Your task to perform on an android device: see tabs open on other devices in the chrome app Image 0: 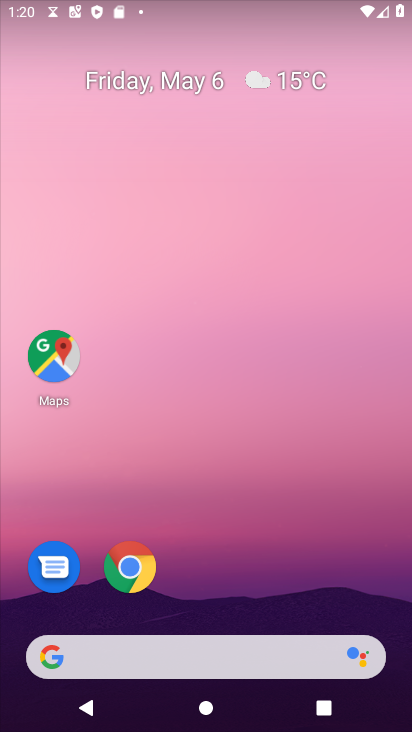
Step 0: drag from (343, 563) to (318, 160)
Your task to perform on an android device: see tabs open on other devices in the chrome app Image 1: 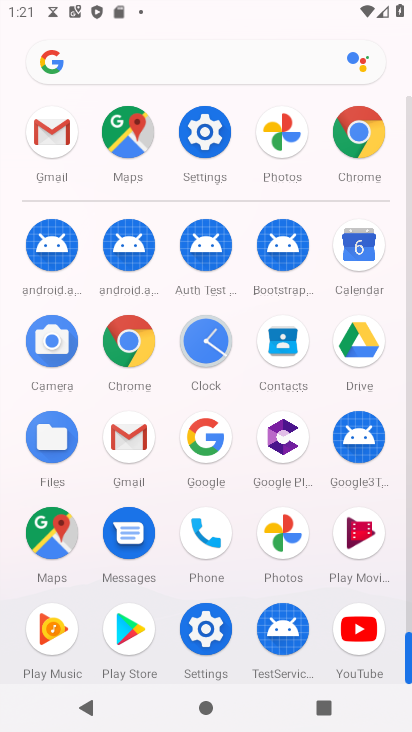
Step 1: click (358, 142)
Your task to perform on an android device: see tabs open on other devices in the chrome app Image 2: 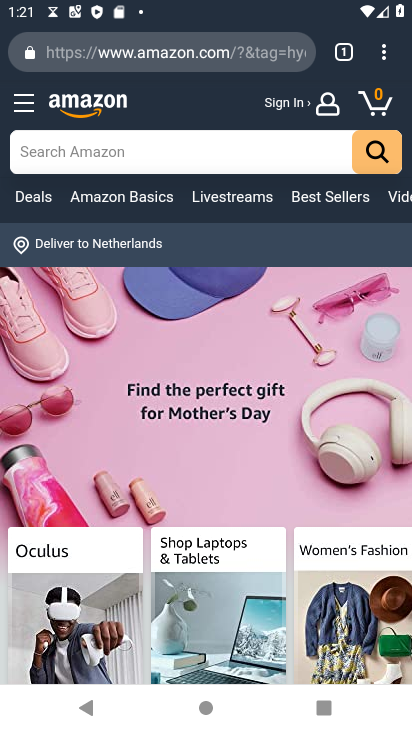
Step 2: press home button
Your task to perform on an android device: see tabs open on other devices in the chrome app Image 3: 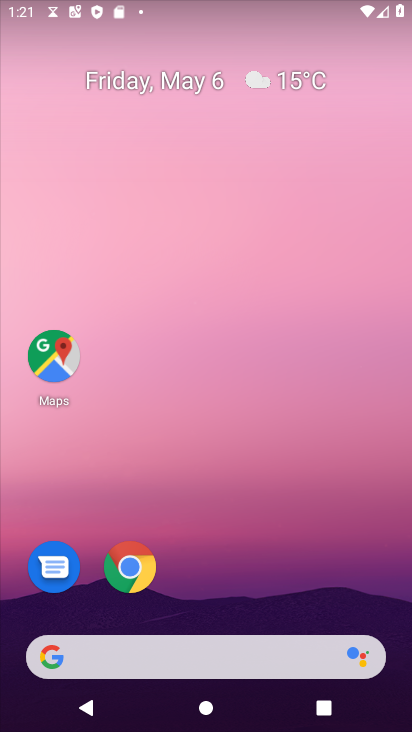
Step 3: click (118, 584)
Your task to perform on an android device: see tabs open on other devices in the chrome app Image 4: 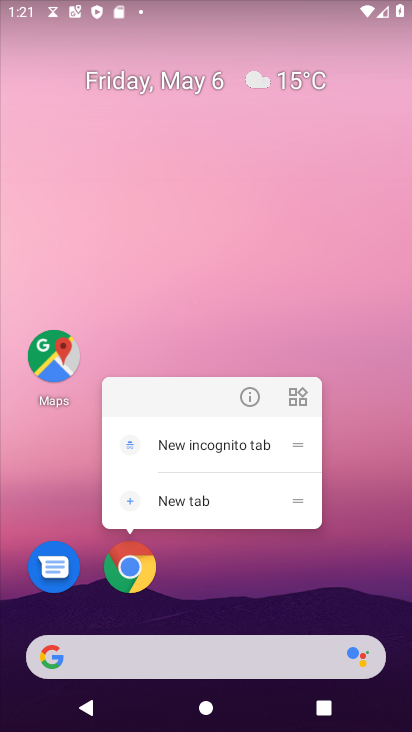
Step 4: click (148, 547)
Your task to perform on an android device: see tabs open on other devices in the chrome app Image 5: 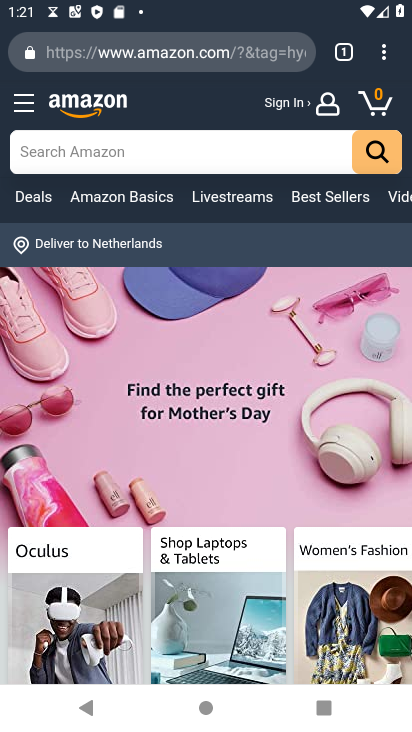
Step 5: task complete